Your task to perform on an android device: Go to display settings Image 0: 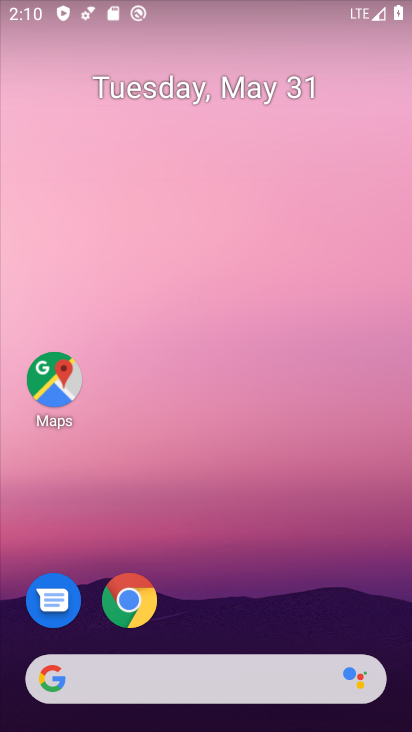
Step 0: press home button
Your task to perform on an android device: Go to display settings Image 1: 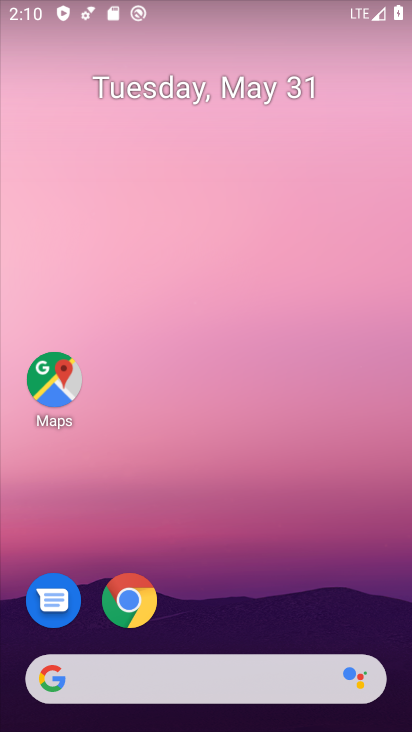
Step 1: drag from (277, 189) to (293, 91)
Your task to perform on an android device: Go to display settings Image 2: 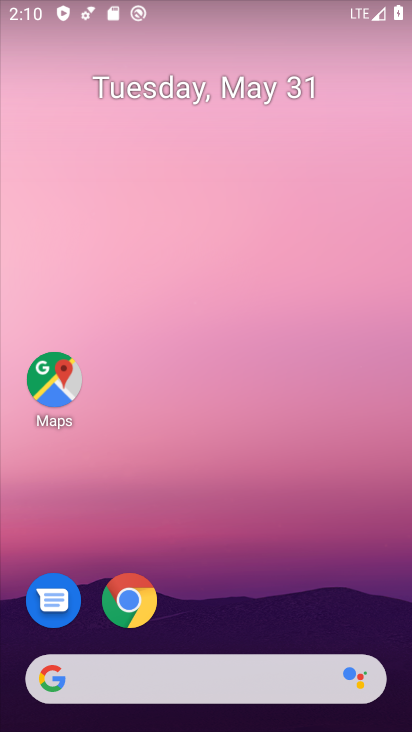
Step 2: drag from (220, 635) to (242, 80)
Your task to perform on an android device: Go to display settings Image 3: 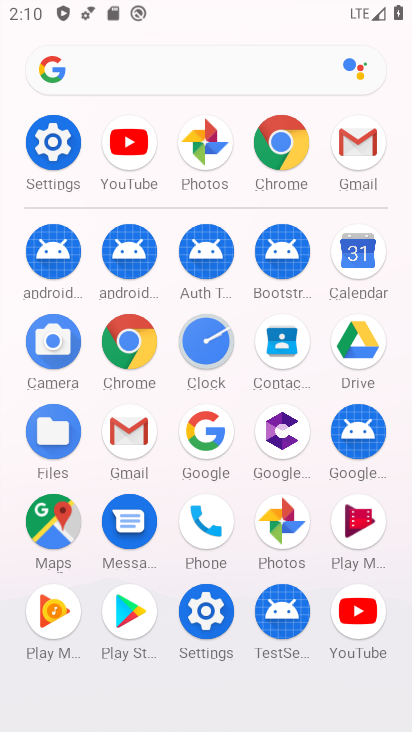
Step 3: click (208, 605)
Your task to perform on an android device: Go to display settings Image 4: 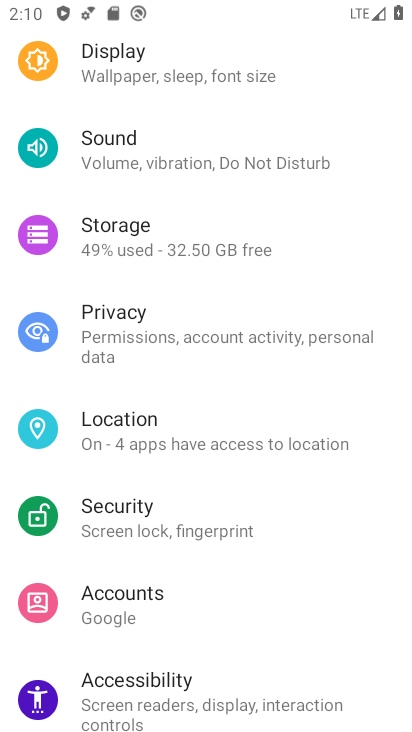
Step 4: click (159, 59)
Your task to perform on an android device: Go to display settings Image 5: 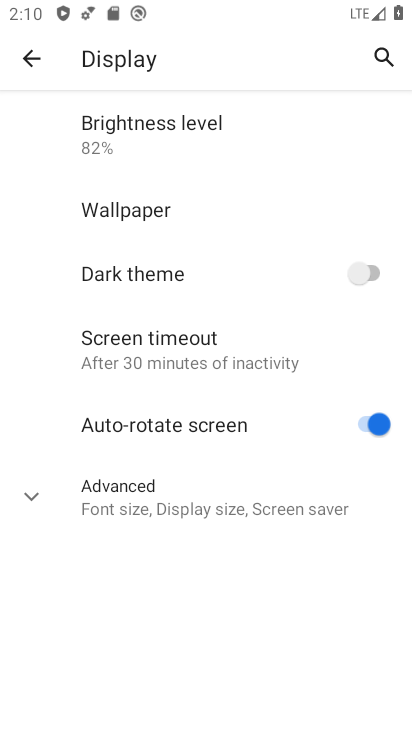
Step 5: click (98, 489)
Your task to perform on an android device: Go to display settings Image 6: 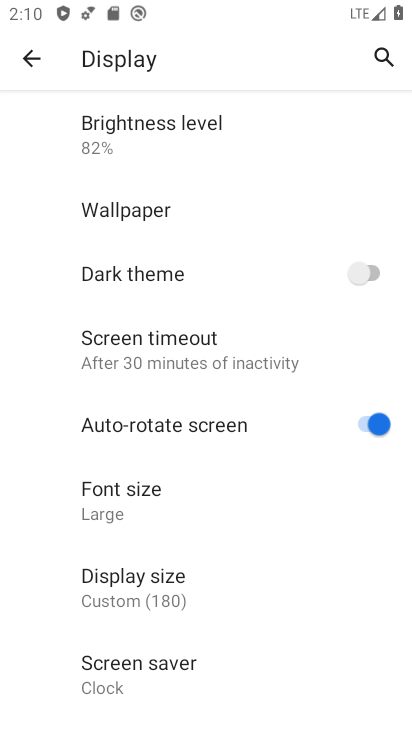
Step 6: task complete